Your task to perform on an android device: change the clock display to show seconds Image 0: 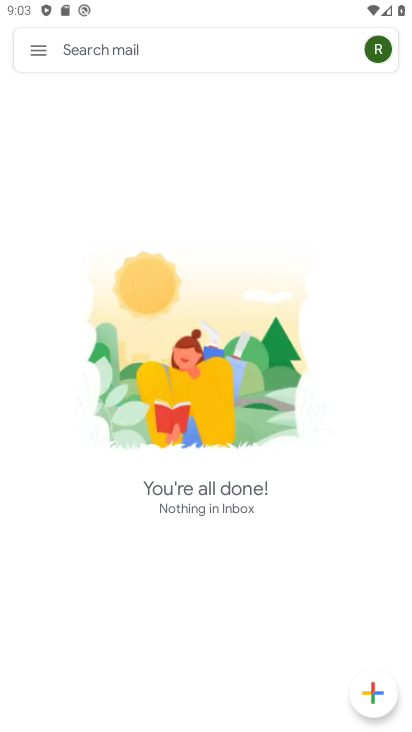
Step 0: press home button
Your task to perform on an android device: change the clock display to show seconds Image 1: 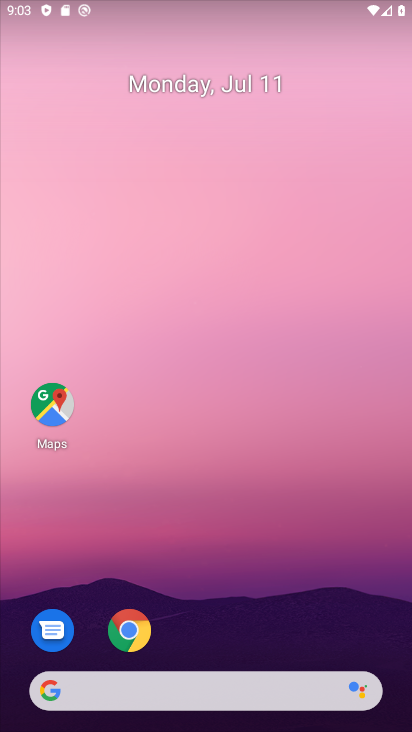
Step 1: drag from (168, 657) to (255, 64)
Your task to perform on an android device: change the clock display to show seconds Image 2: 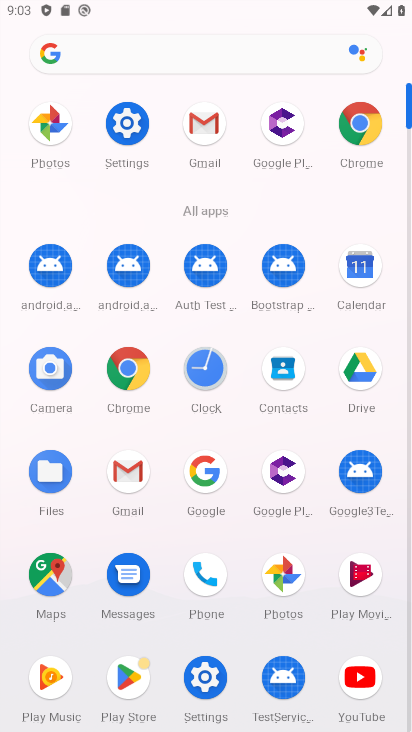
Step 2: click (203, 377)
Your task to perform on an android device: change the clock display to show seconds Image 3: 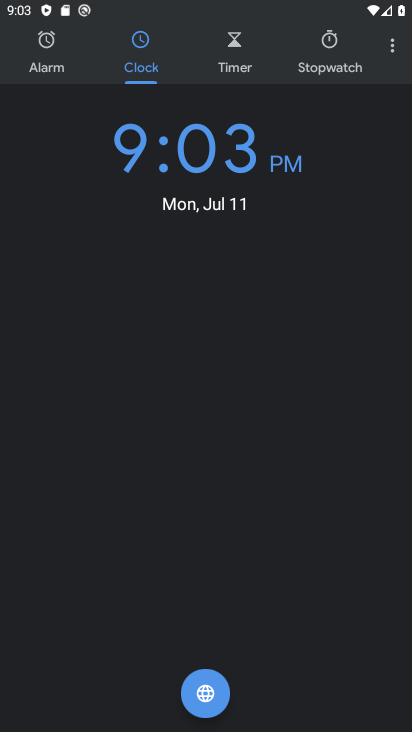
Step 3: click (377, 55)
Your task to perform on an android device: change the clock display to show seconds Image 4: 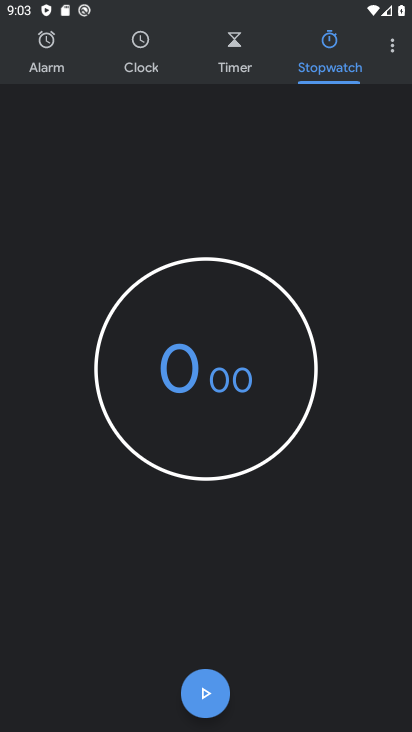
Step 4: drag from (394, 44) to (274, 91)
Your task to perform on an android device: change the clock display to show seconds Image 5: 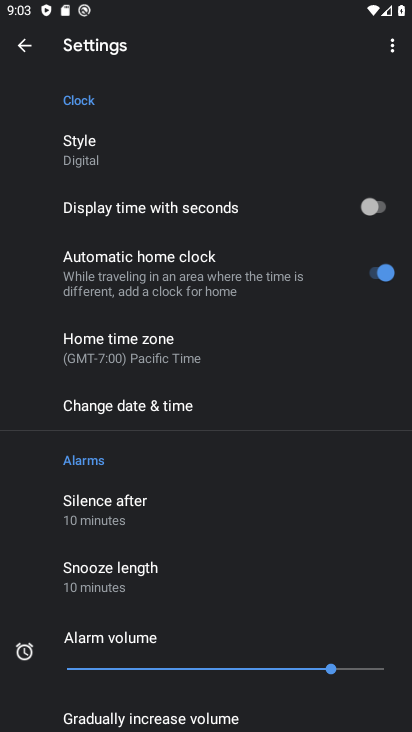
Step 5: click (378, 205)
Your task to perform on an android device: change the clock display to show seconds Image 6: 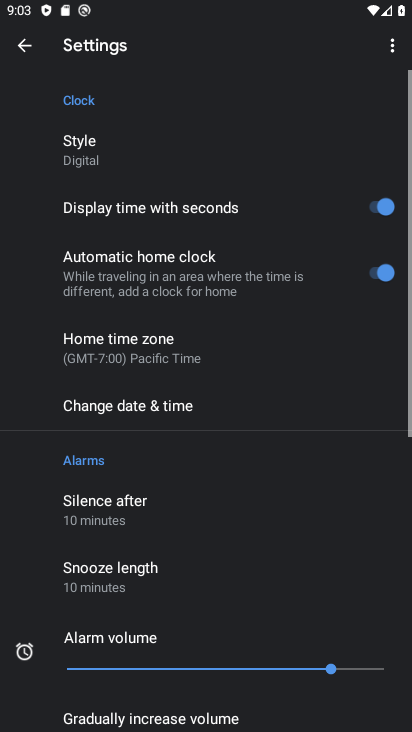
Step 6: task complete